Your task to perform on an android device: Go to network settings Image 0: 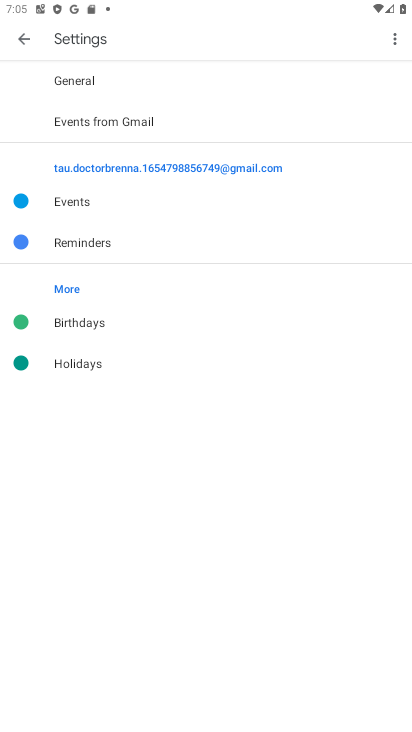
Step 0: press home button
Your task to perform on an android device: Go to network settings Image 1: 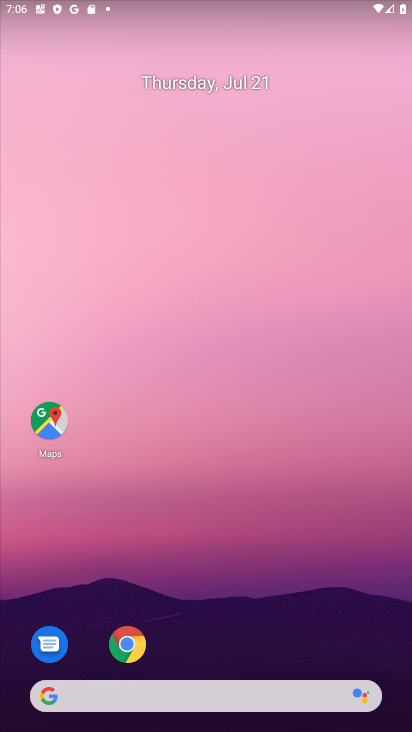
Step 1: drag from (212, 595) to (192, 165)
Your task to perform on an android device: Go to network settings Image 2: 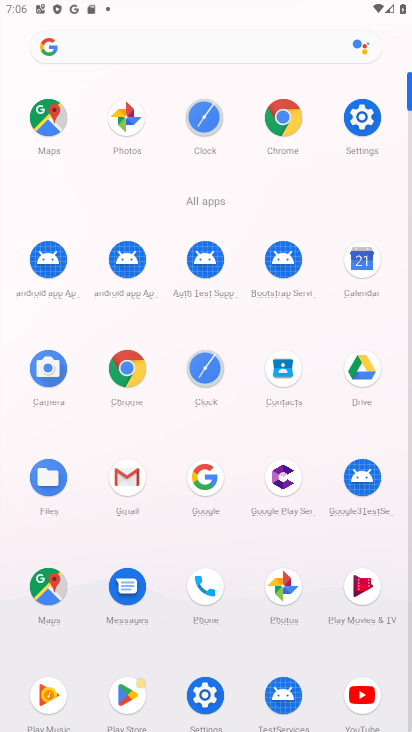
Step 2: click (366, 129)
Your task to perform on an android device: Go to network settings Image 3: 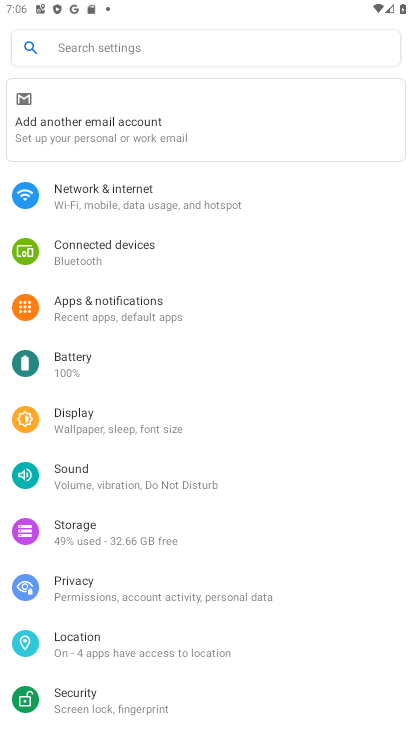
Step 3: click (81, 187)
Your task to perform on an android device: Go to network settings Image 4: 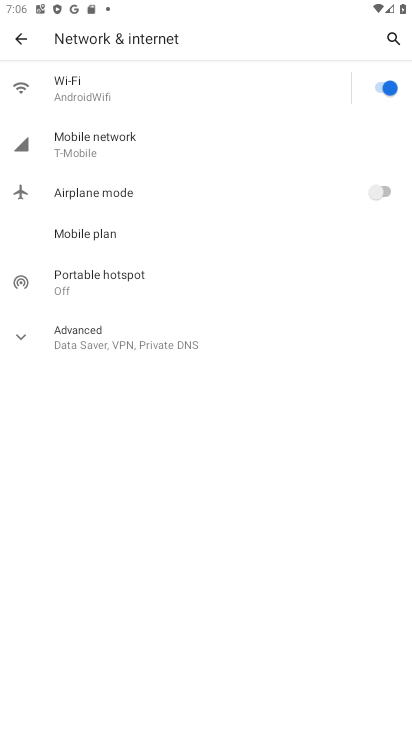
Step 4: task complete